Your task to perform on an android device: open device folders in google photos Image 0: 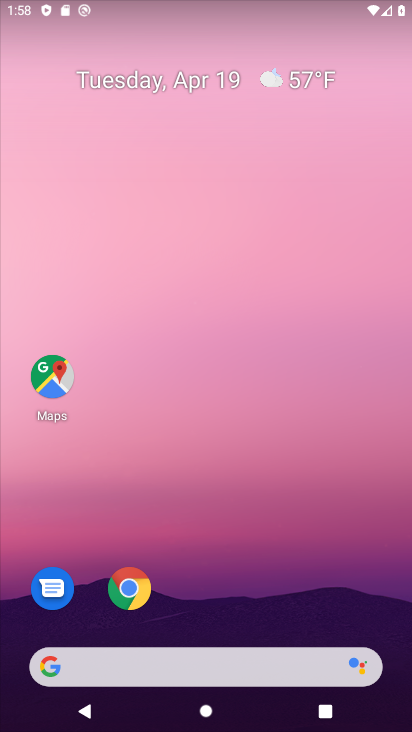
Step 0: drag from (309, 560) to (364, 90)
Your task to perform on an android device: open device folders in google photos Image 1: 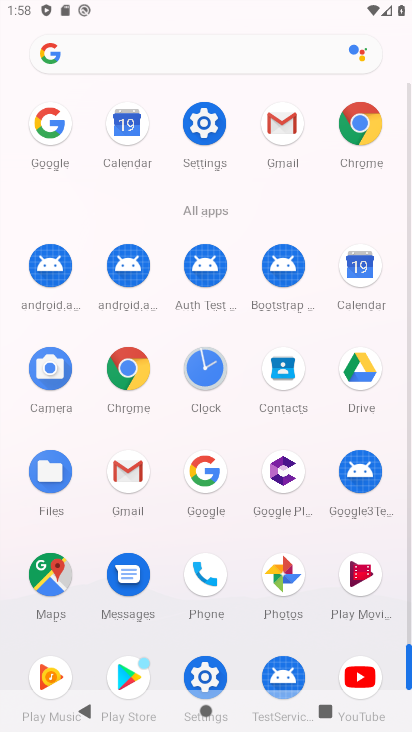
Step 1: click (272, 568)
Your task to perform on an android device: open device folders in google photos Image 2: 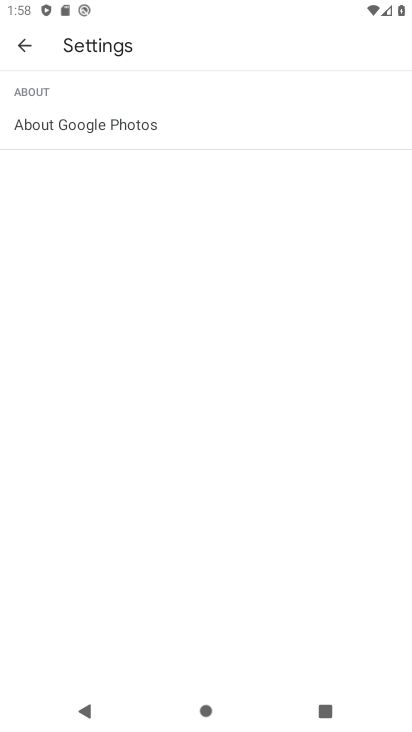
Step 2: click (29, 40)
Your task to perform on an android device: open device folders in google photos Image 3: 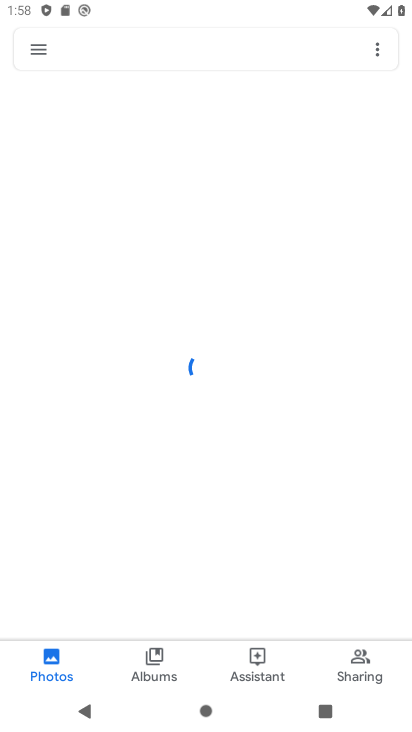
Step 3: click (38, 50)
Your task to perform on an android device: open device folders in google photos Image 4: 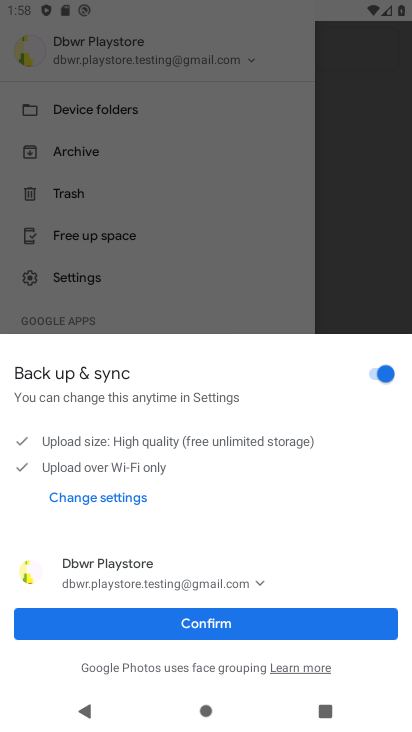
Step 4: click (264, 628)
Your task to perform on an android device: open device folders in google photos Image 5: 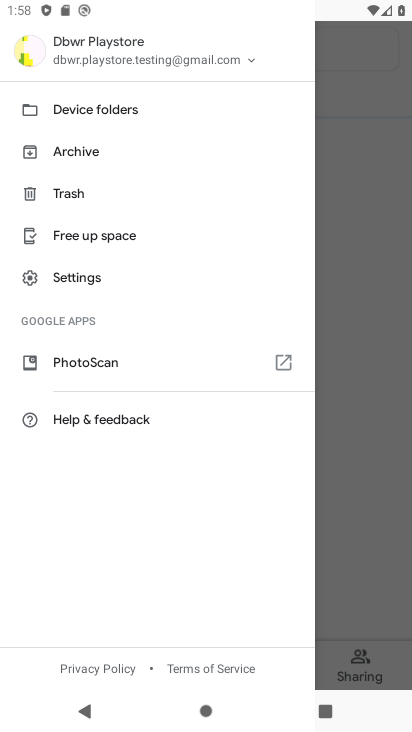
Step 5: click (117, 110)
Your task to perform on an android device: open device folders in google photos Image 6: 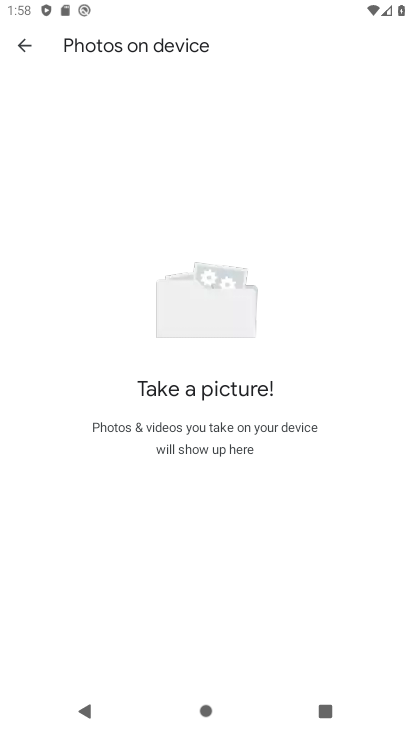
Step 6: task complete